Your task to perform on an android device: What is the recent news? Image 0: 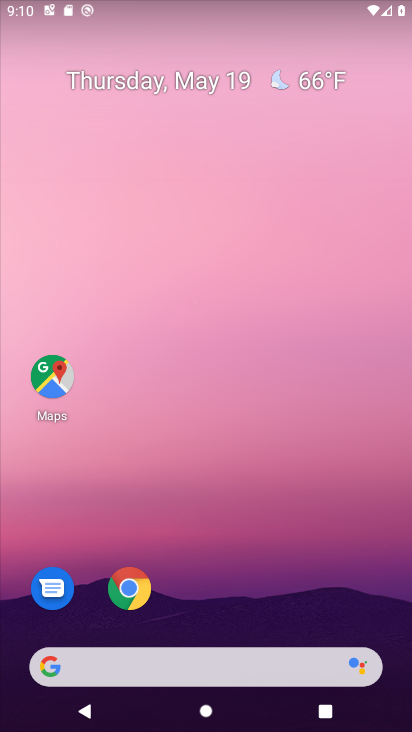
Step 0: drag from (0, 209) to (407, 382)
Your task to perform on an android device: What is the recent news? Image 1: 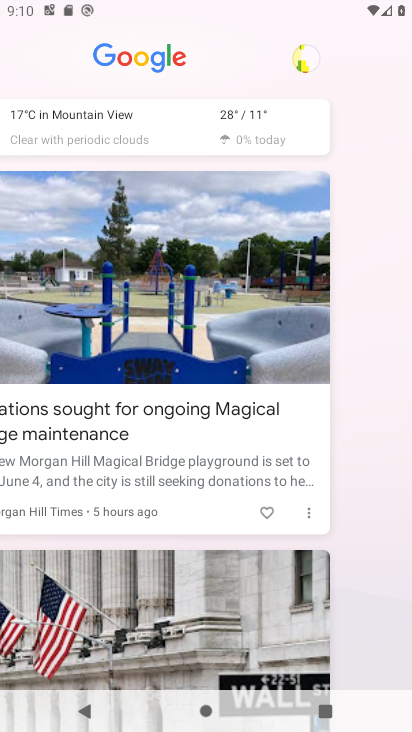
Step 1: task complete